Your task to perform on an android device: turn off notifications in google photos Image 0: 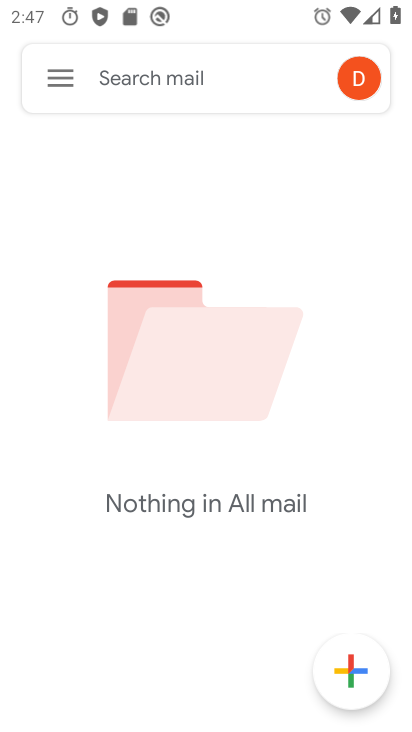
Step 0: press home button
Your task to perform on an android device: turn off notifications in google photos Image 1: 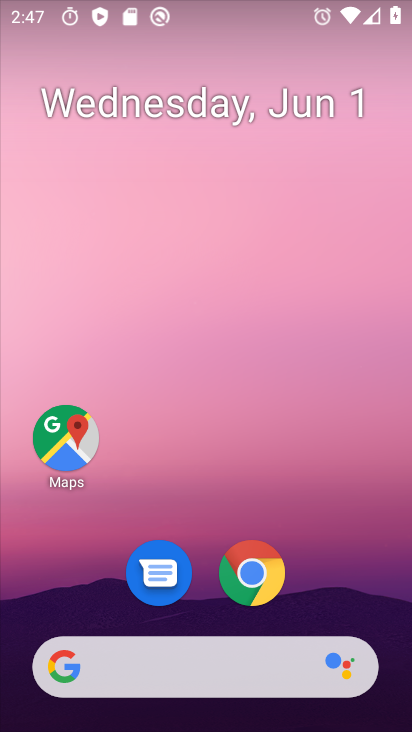
Step 1: drag from (209, 618) to (221, 257)
Your task to perform on an android device: turn off notifications in google photos Image 2: 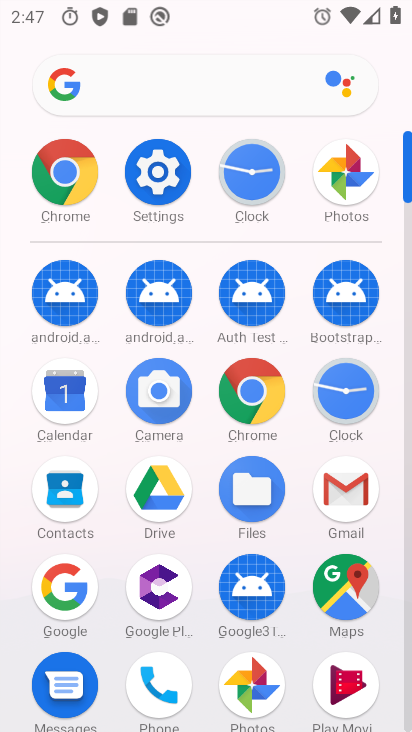
Step 2: click (356, 183)
Your task to perform on an android device: turn off notifications in google photos Image 3: 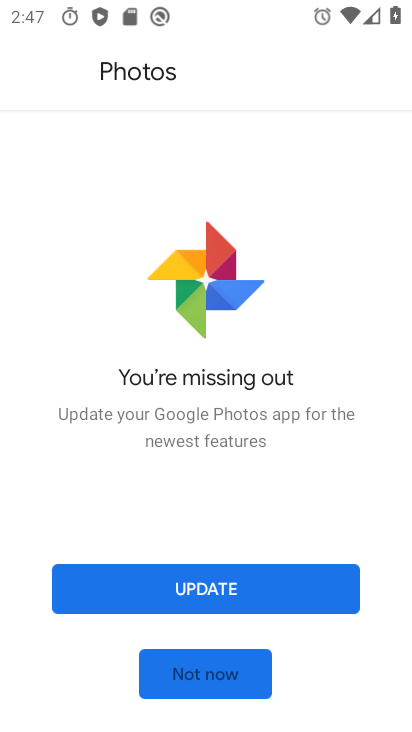
Step 3: click (217, 671)
Your task to perform on an android device: turn off notifications in google photos Image 4: 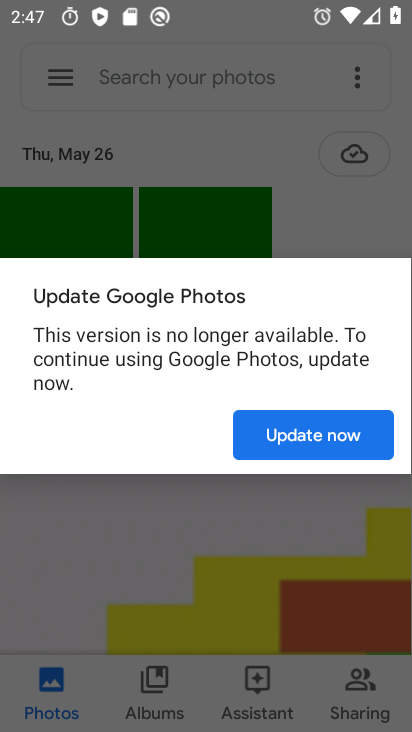
Step 4: click (268, 428)
Your task to perform on an android device: turn off notifications in google photos Image 5: 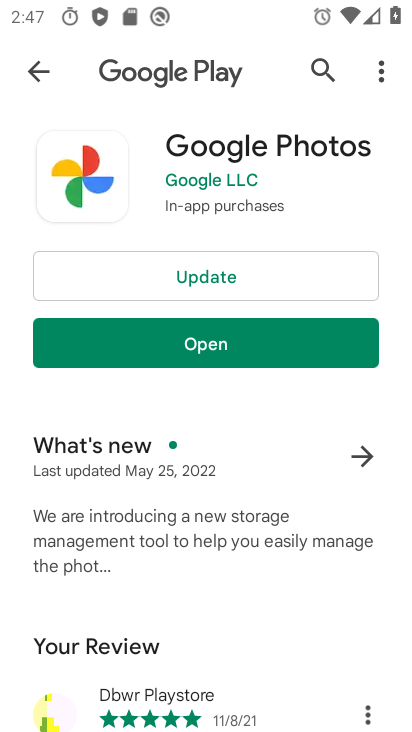
Step 5: click (259, 342)
Your task to perform on an android device: turn off notifications in google photos Image 6: 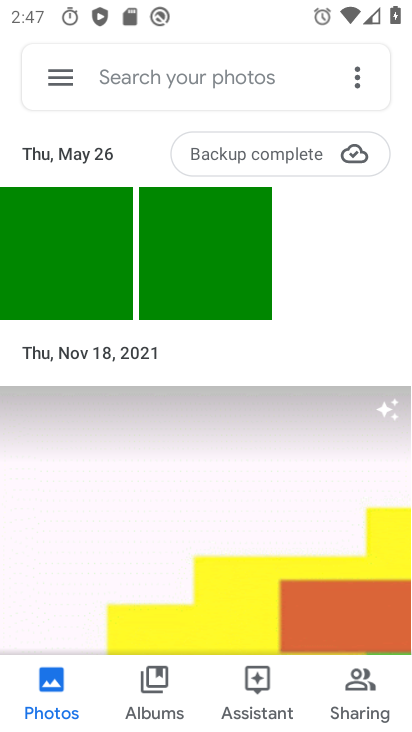
Step 6: click (45, 81)
Your task to perform on an android device: turn off notifications in google photos Image 7: 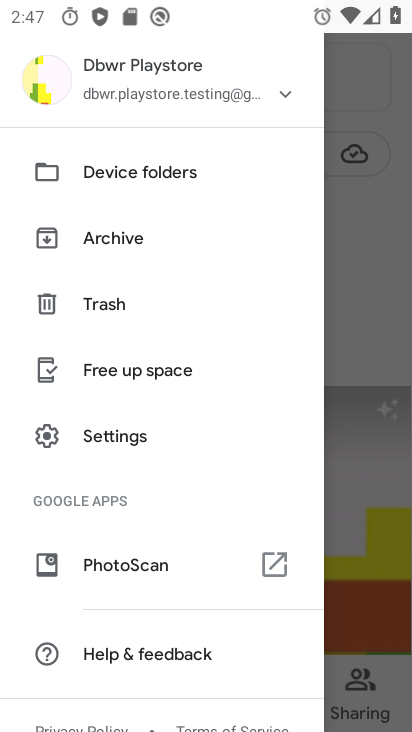
Step 7: click (161, 441)
Your task to perform on an android device: turn off notifications in google photos Image 8: 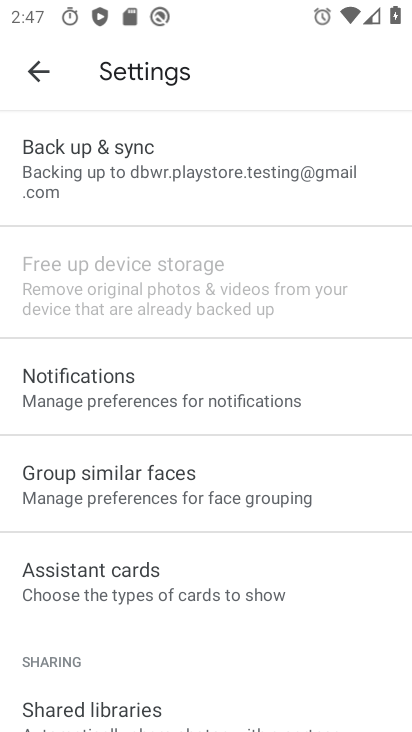
Step 8: click (199, 390)
Your task to perform on an android device: turn off notifications in google photos Image 9: 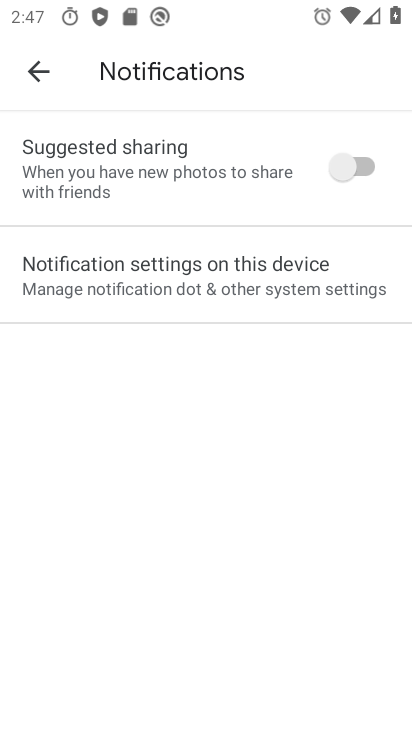
Step 9: click (229, 277)
Your task to perform on an android device: turn off notifications in google photos Image 10: 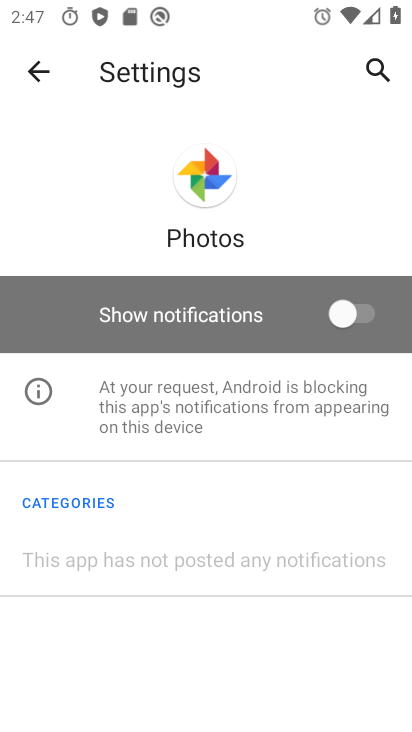
Step 10: task complete